Your task to perform on an android device: toggle pop-ups in chrome Image 0: 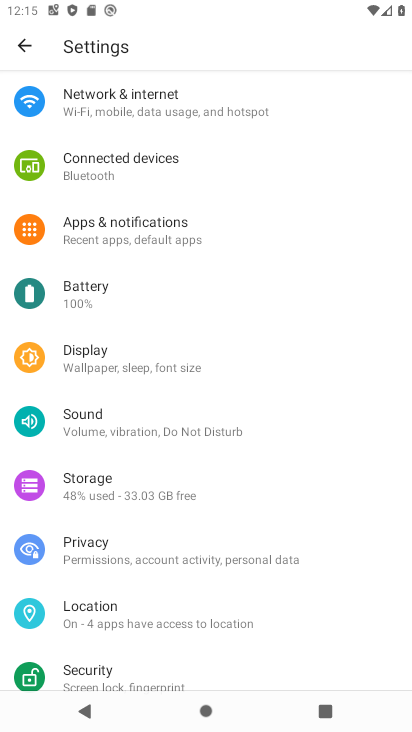
Step 0: press home button
Your task to perform on an android device: toggle pop-ups in chrome Image 1: 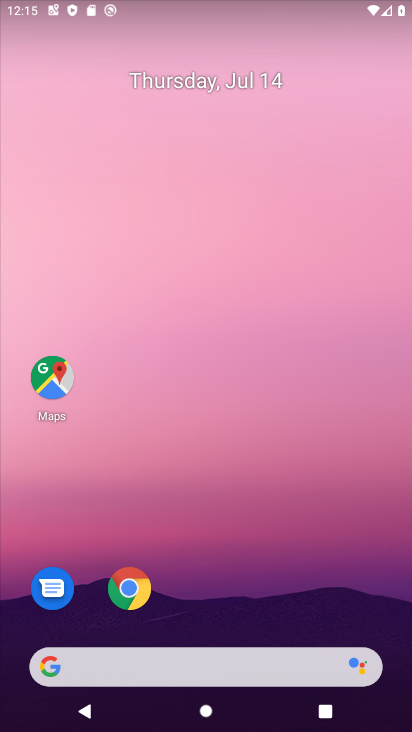
Step 1: click (107, 592)
Your task to perform on an android device: toggle pop-ups in chrome Image 2: 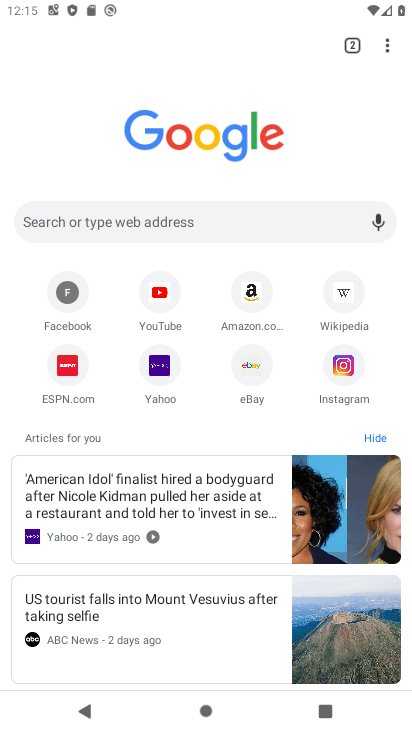
Step 2: click (386, 46)
Your task to perform on an android device: toggle pop-ups in chrome Image 3: 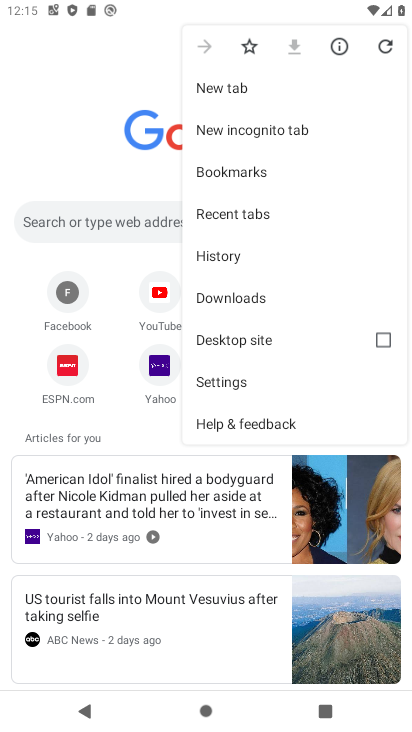
Step 3: click (261, 378)
Your task to perform on an android device: toggle pop-ups in chrome Image 4: 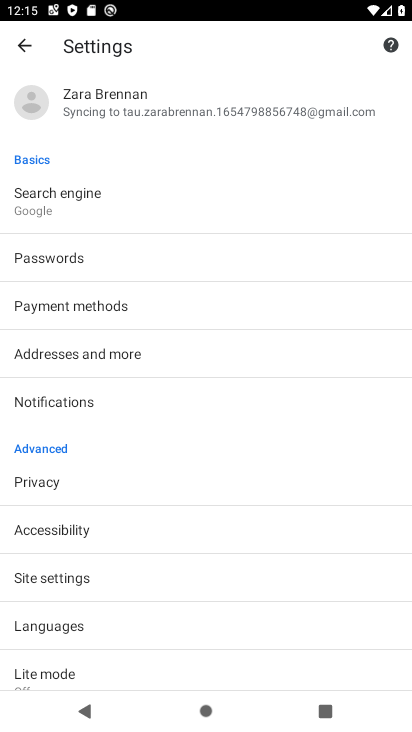
Step 4: click (160, 587)
Your task to perform on an android device: toggle pop-ups in chrome Image 5: 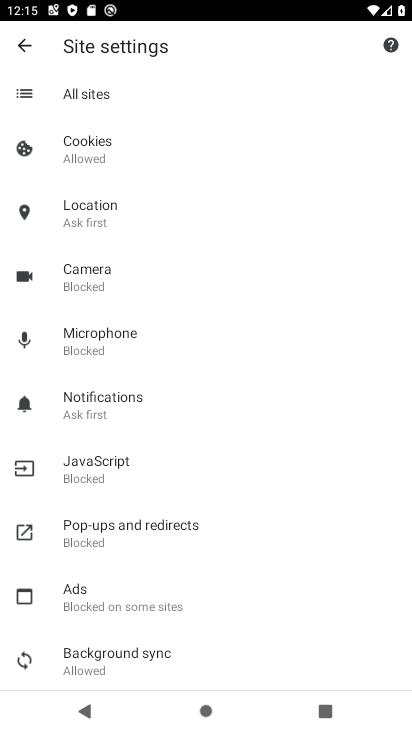
Step 5: click (175, 513)
Your task to perform on an android device: toggle pop-ups in chrome Image 6: 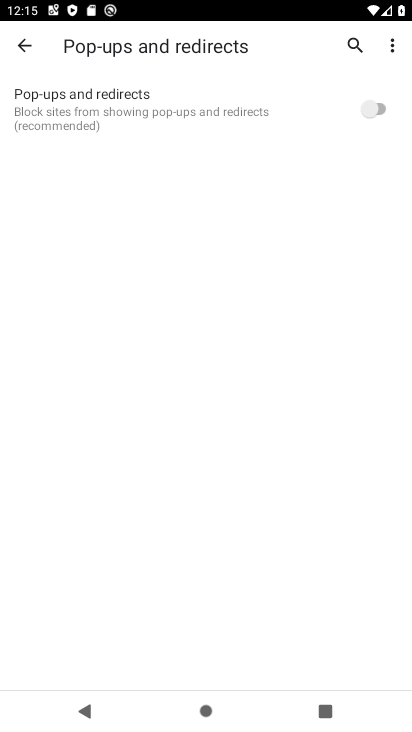
Step 6: click (364, 116)
Your task to perform on an android device: toggle pop-ups in chrome Image 7: 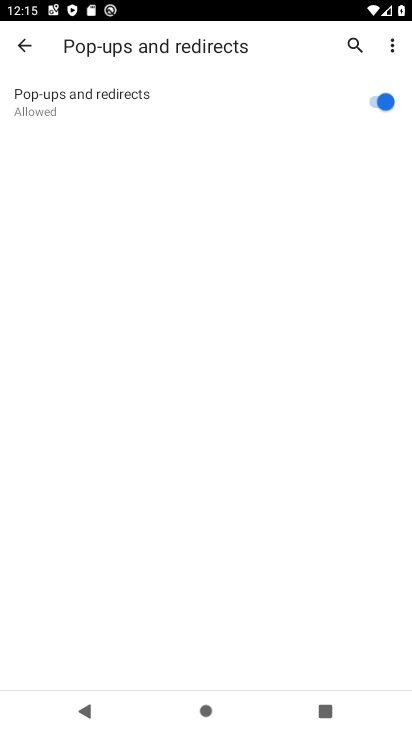
Step 7: task complete